Your task to perform on an android device: Open the map Image 0: 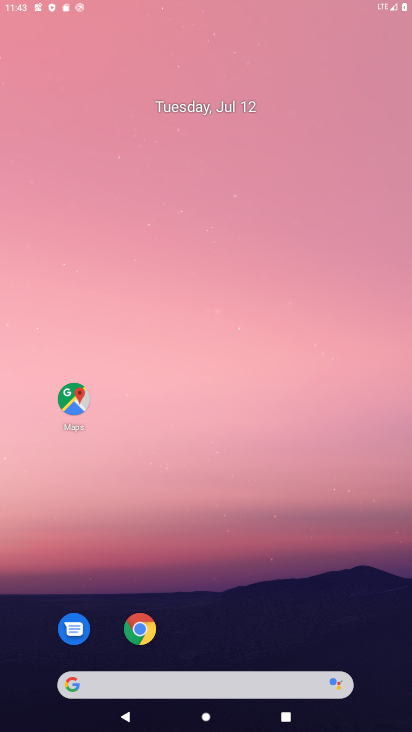
Step 0: press home button
Your task to perform on an android device: Open the map Image 1: 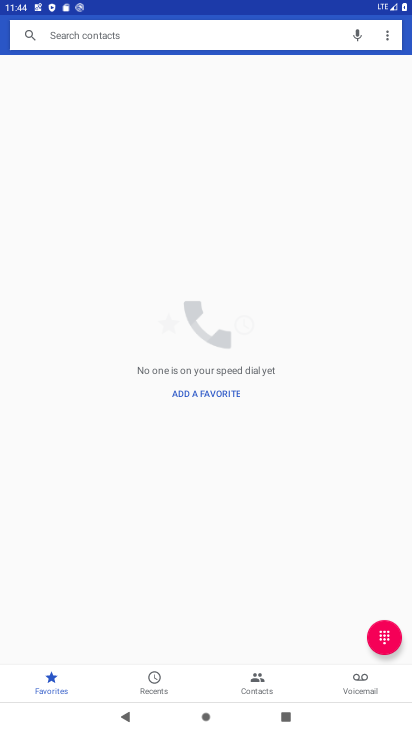
Step 1: click (250, 144)
Your task to perform on an android device: Open the map Image 2: 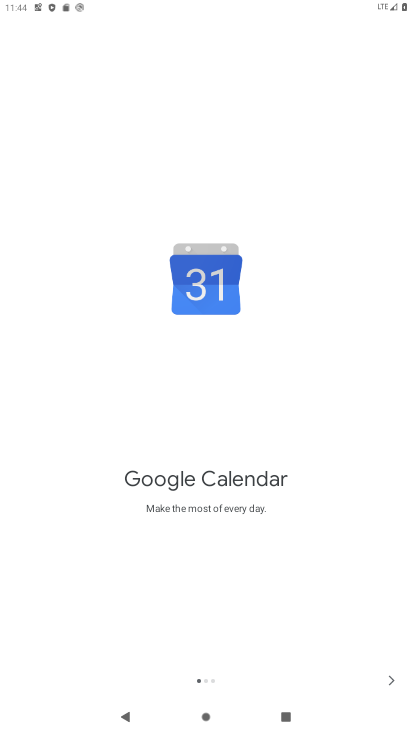
Step 2: press home button
Your task to perform on an android device: Open the map Image 3: 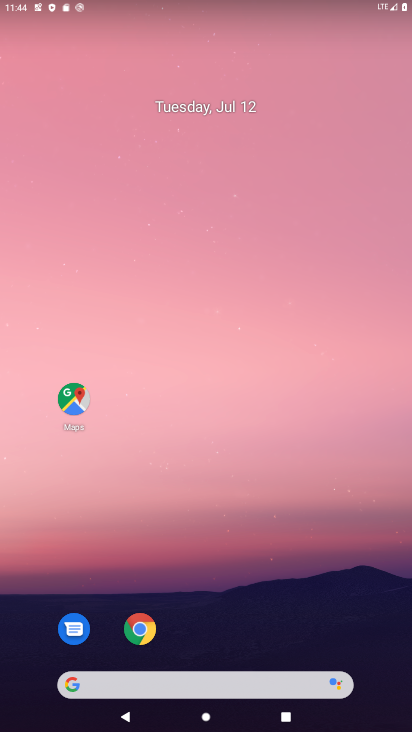
Step 3: click (73, 395)
Your task to perform on an android device: Open the map Image 4: 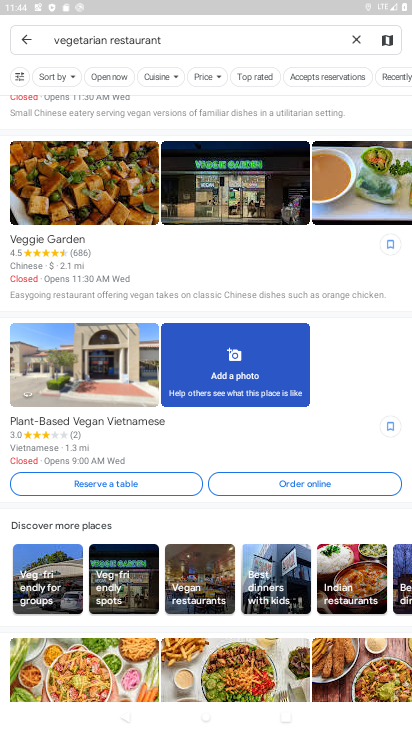
Step 4: click (24, 33)
Your task to perform on an android device: Open the map Image 5: 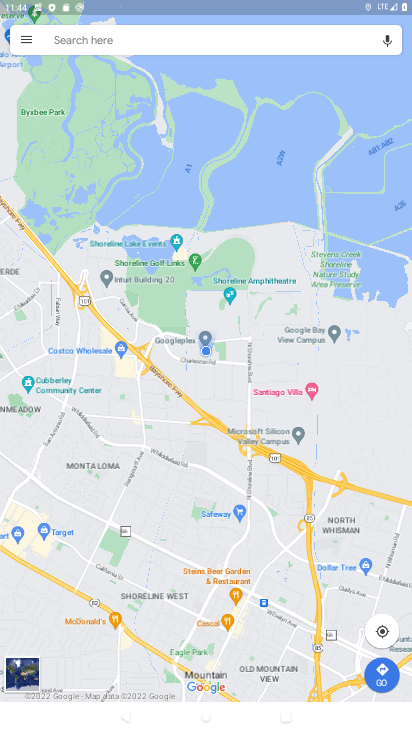
Step 5: task complete